Your task to perform on an android device: Show me productivity apps on the Play Store Image 0: 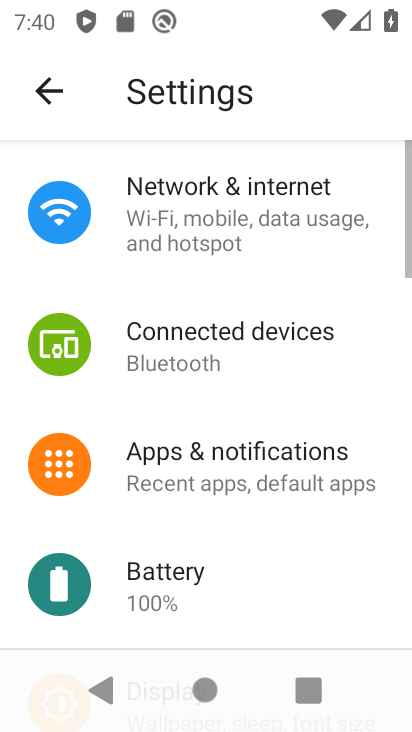
Step 0: press home button
Your task to perform on an android device: Show me productivity apps on the Play Store Image 1: 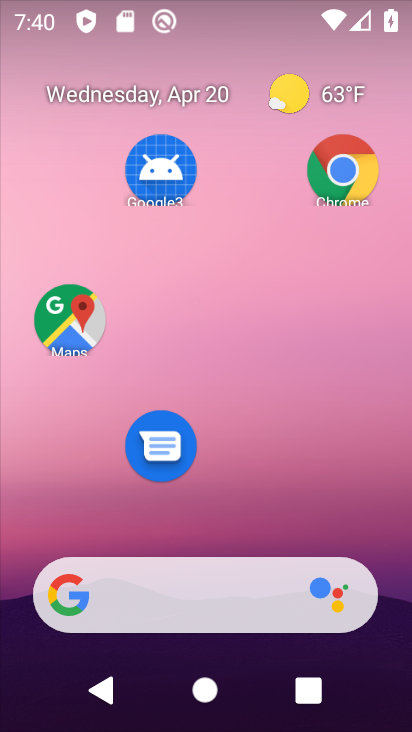
Step 1: drag from (254, 422) to (252, 126)
Your task to perform on an android device: Show me productivity apps on the Play Store Image 2: 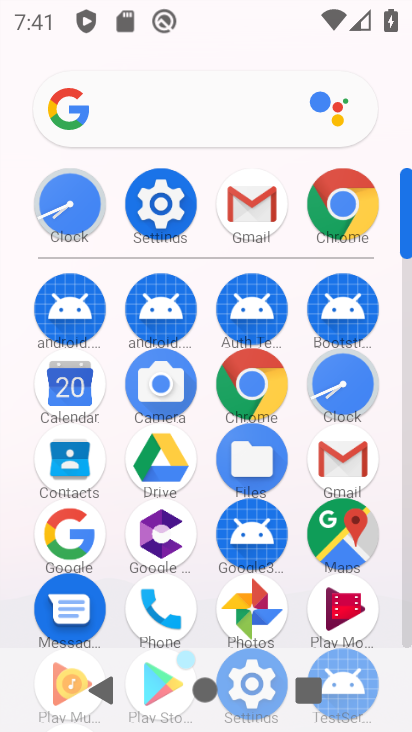
Step 2: drag from (200, 590) to (208, 294)
Your task to perform on an android device: Show me productivity apps on the Play Store Image 3: 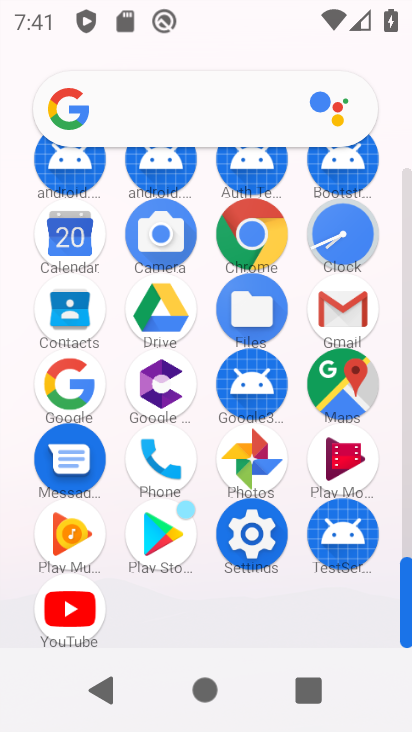
Step 3: click (151, 545)
Your task to perform on an android device: Show me productivity apps on the Play Store Image 4: 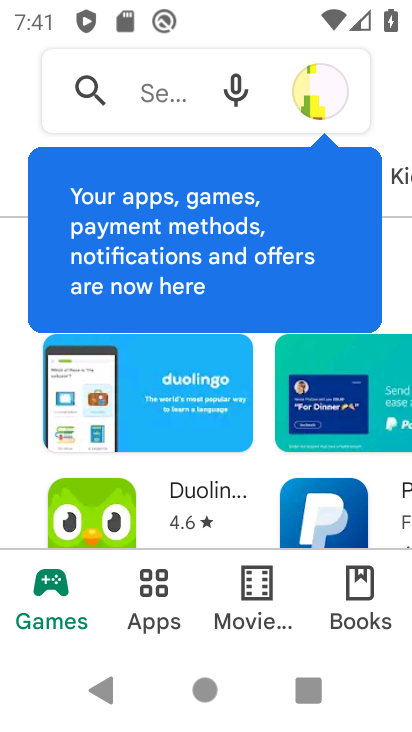
Step 4: click (158, 592)
Your task to perform on an android device: Show me productivity apps on the Play Store Image 5: 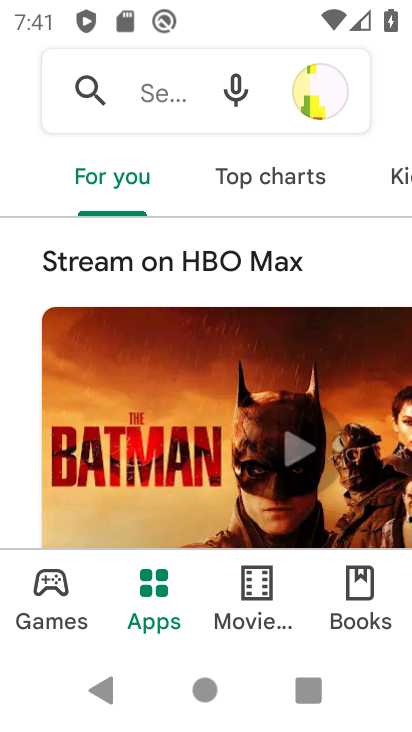
Step 5: click (166, 83)
Your task to perform on an android device: Show me productivity apps on the Play Store Image 6: 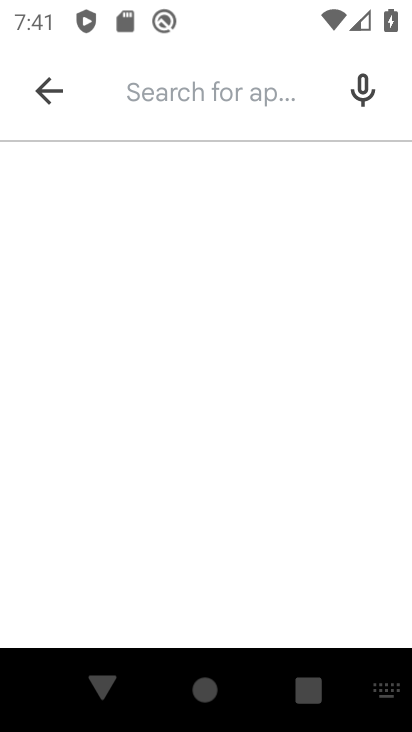
Step 6: type "productivity apps"
Your task to perform on an android device: Show me productivity apps on the Play Store Image 7: 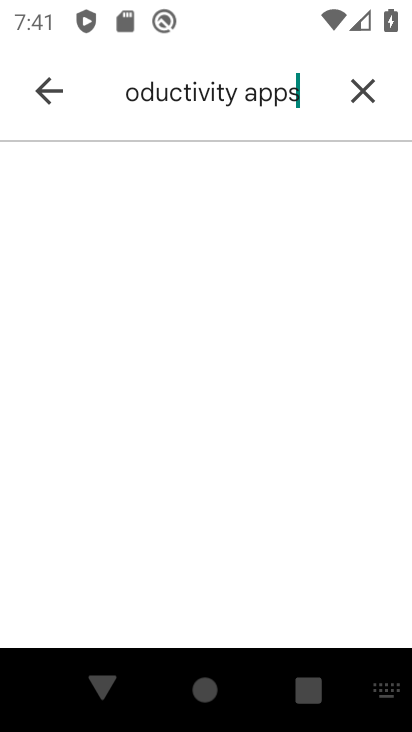
Step 7: type ""
Your task to perform on an android device: Show me productivity apps on the Play Store Image 8: 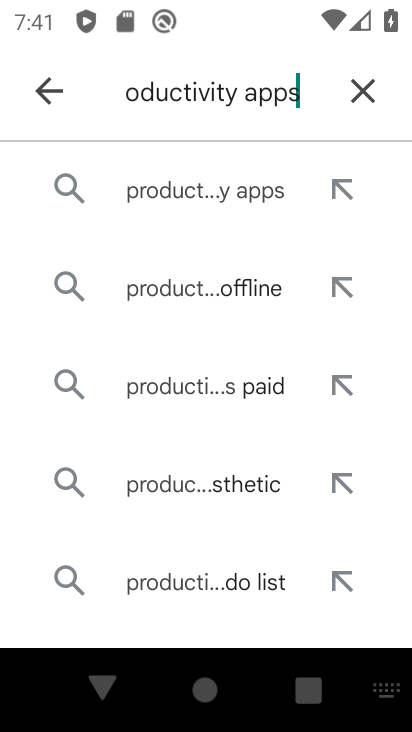
Step 8: click (225, 183)
Your task to perform on an android device: Show me productivity apps on the Play Store Image 9: 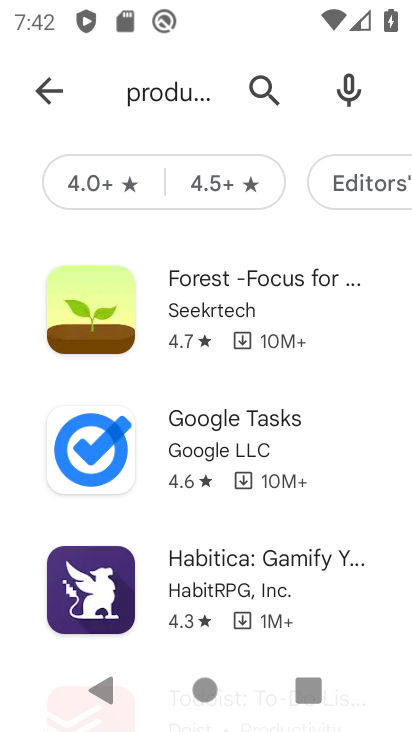
Step 9: task complete